Your task to perform on an android device: turn on data saver in the chrome app Image 0: 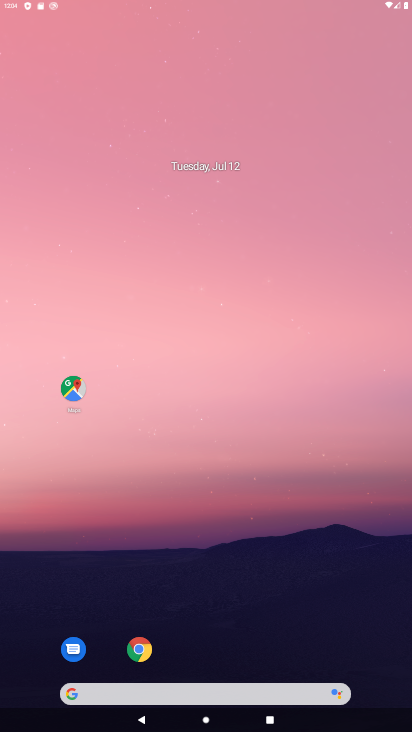
Step 0: click (260, 57)
Your task to perform on an android device: turn on data saver in the chrome app Image 1: 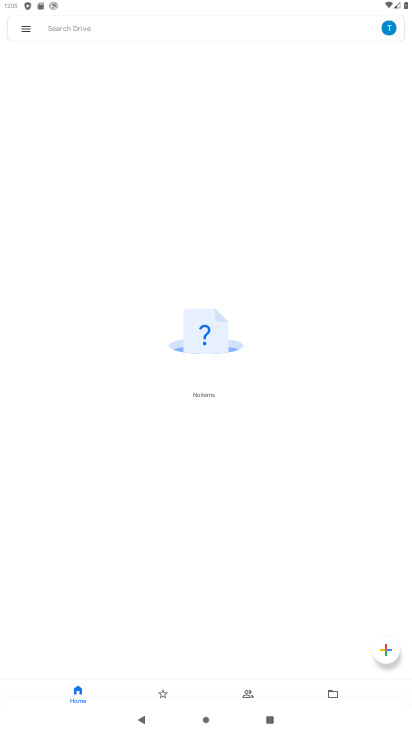
Step 1: press back button
Your task to perform on an android device: turn on data saver in the chrome app Image 2: 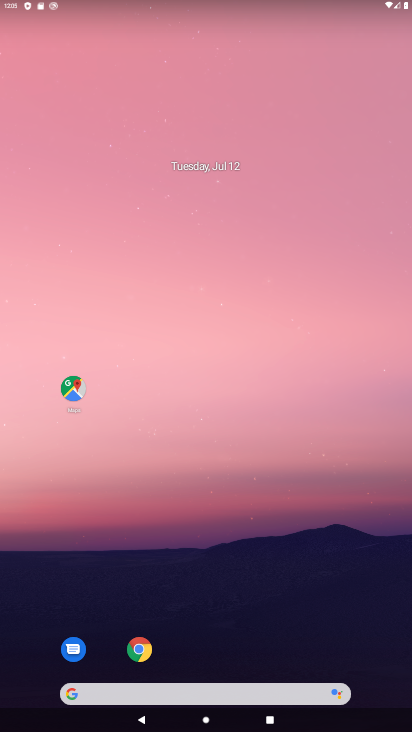
Step 2: click (150, 652)
Your task to perform on an android device: turn on data saver in the chrome app Image 3: 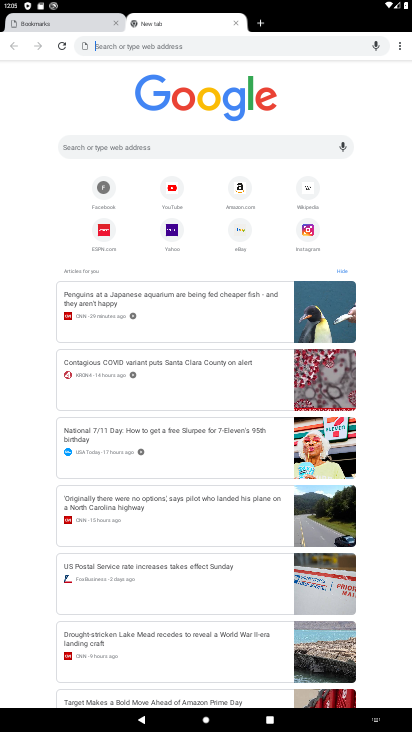
Step 3: click (259, 23)
Your task to perform on an android device: turn on data saver in the chrome app Image 4: 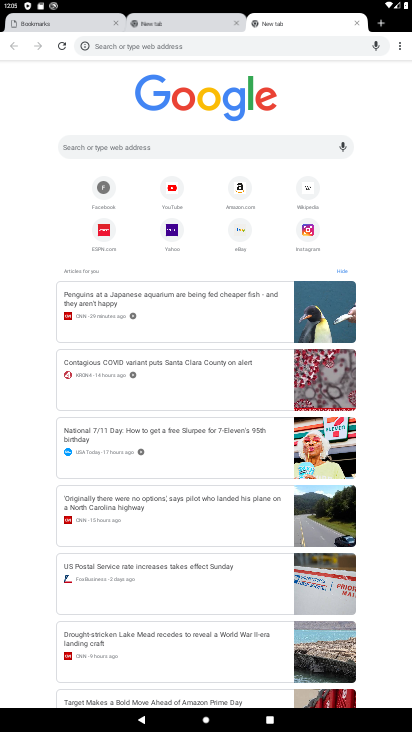
Step 4: click (247, 228)
Your task to perform on an android device: turn on data saver in the chrome app Image 5: 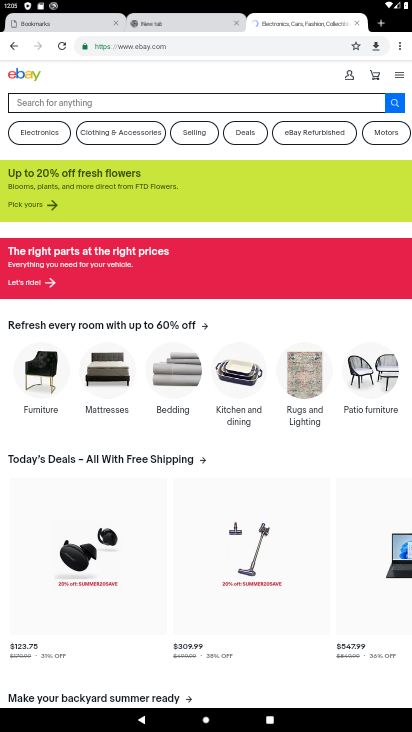
Step 5: task complete